Your task to perform on an android device: Go to Yahoo.com Image 0: 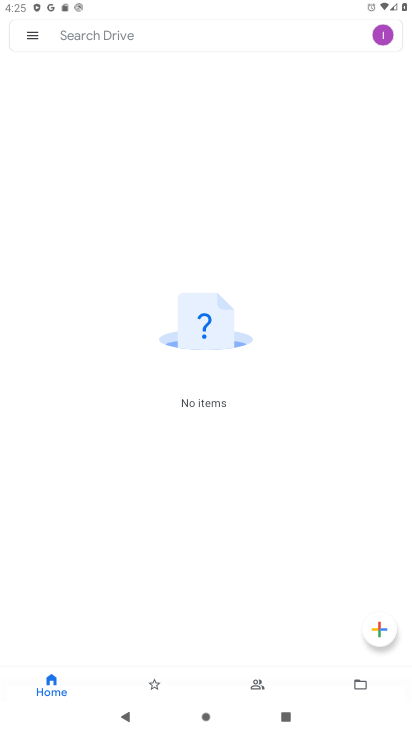
Step 0: press home button
Your task to perform on an android device: Go to Yahoo.com Image 1: 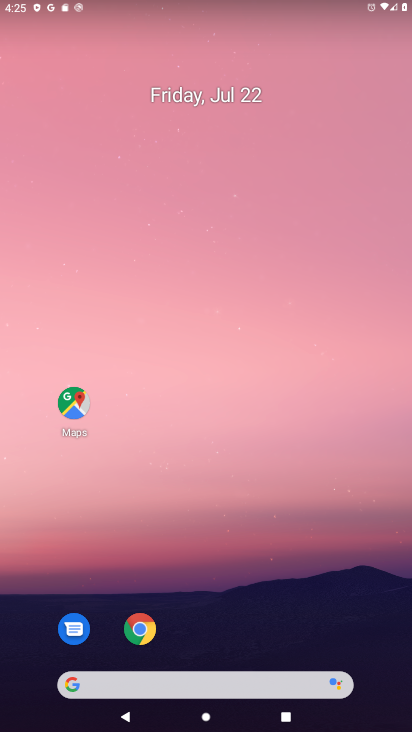
Step 1: click (150, 640)
Your task to perform on an android device: Go to Yahoo.com Image 2: 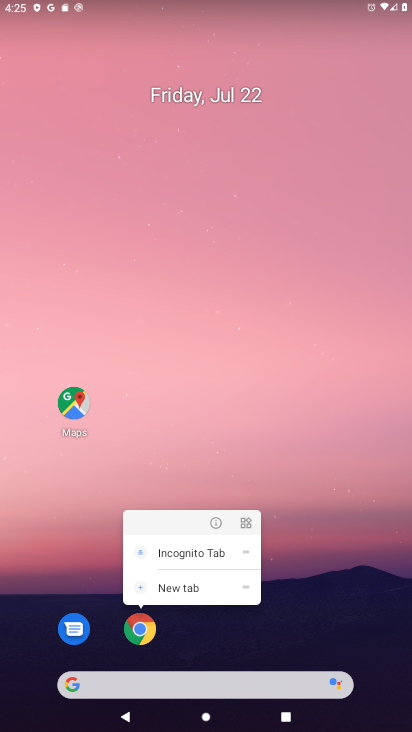
Step 2: click (152, 626)
Your task to perform on an android device: Go to Yahoo.com Image 3: 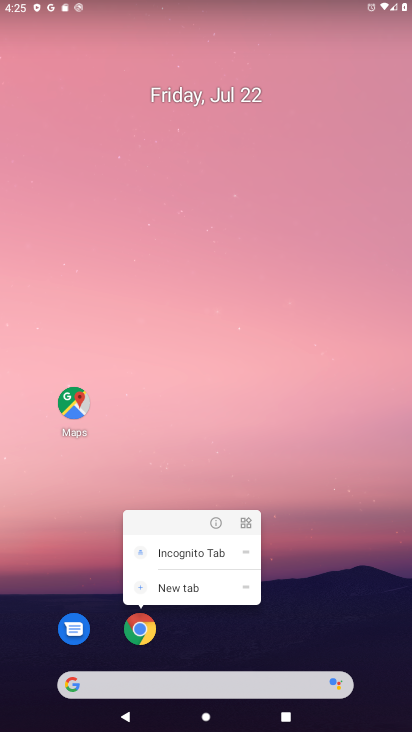
Step 3: click (142, 632)
Your task to perform on an android device: Go to Yahoo.com Image 4: 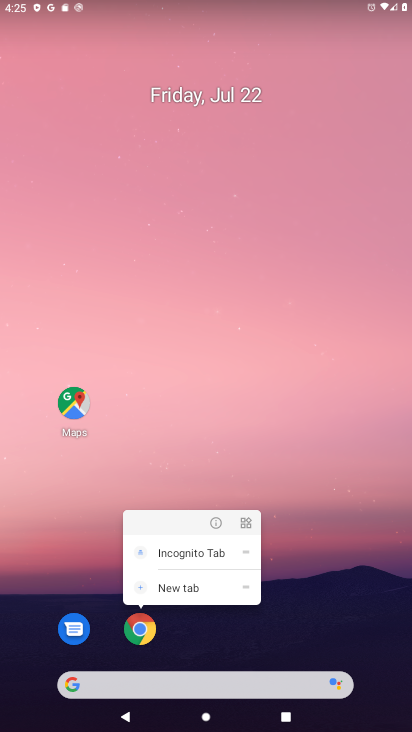
Step 4: click (142, 629)
Your task to perform on an android device: Go to Yahoo.com Image 5: 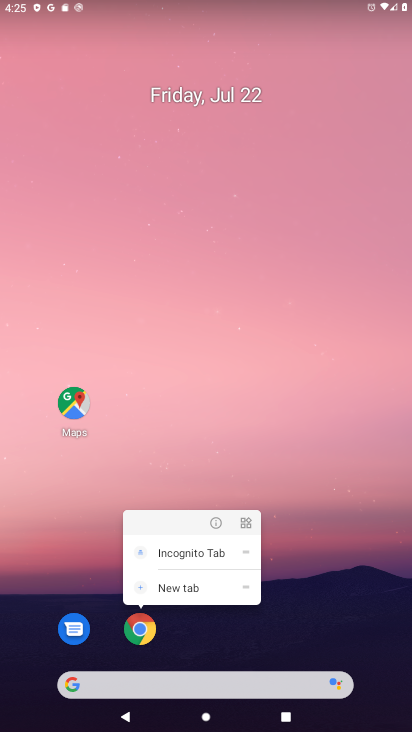
Step 5: click (142, 629)
Your task to perform on an android device: Go to Yahoo.com Image 6: 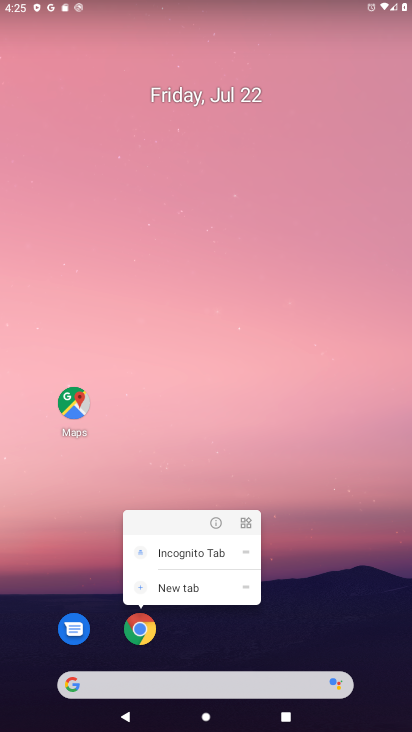
Step 6: click (142, 638)
Your task to perform on an android device: Go to Yahoo.com Image 7: 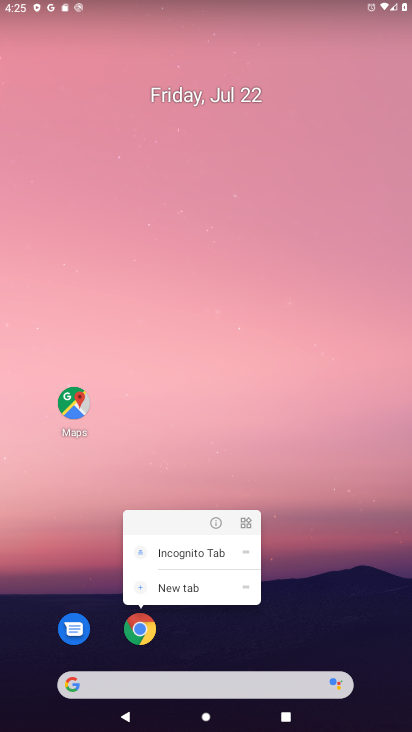
Step 7: click (137, 631)
Your task to perform on an android device: Go to Yahoo.com Image 8: 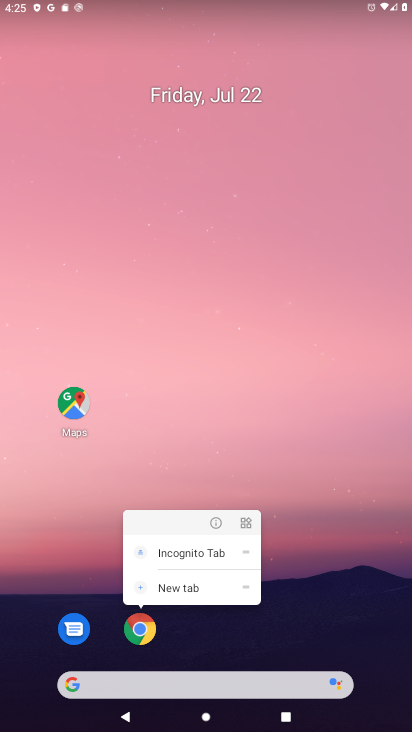
Step 8: click (137, 630)
Your task to perform on an android device: Go to Yahoo.com Image 9: 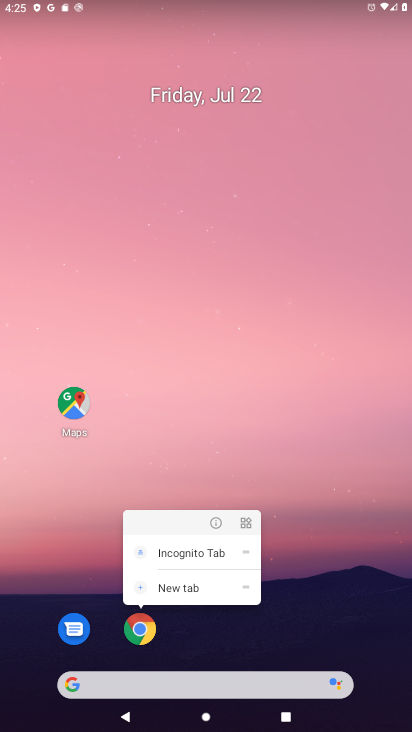
Step 9: click (138, 630)
Your task to perform on an android device: Go to Yahoo.com Image 10: 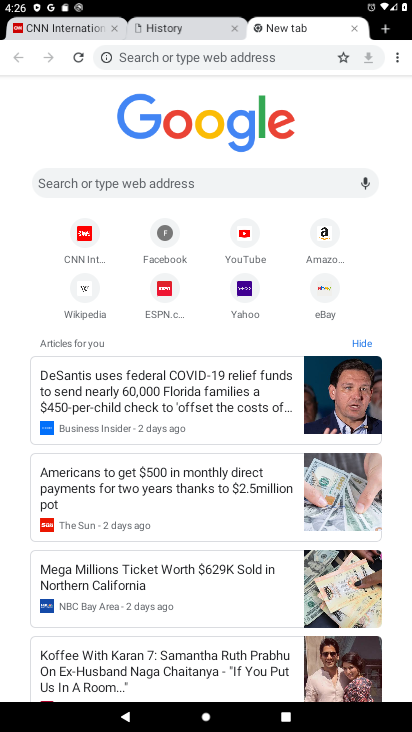
Step 10: click (252, 293)
Your task to perform on an android device: Go to Yahoo.com Image 11: 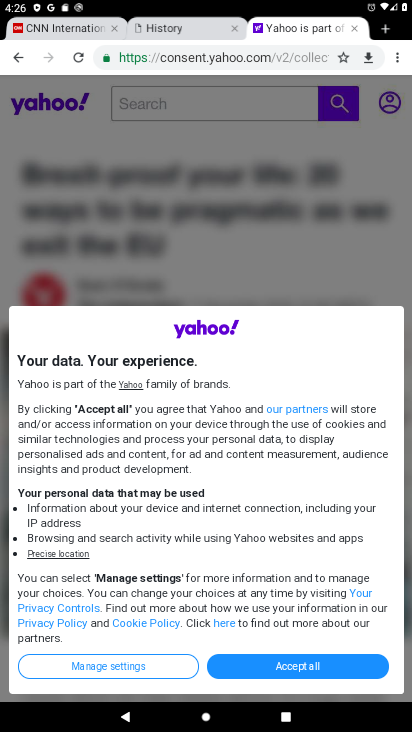
Step 11: task complete